Your task to perform on an android device: Go to Google maps Image 0: 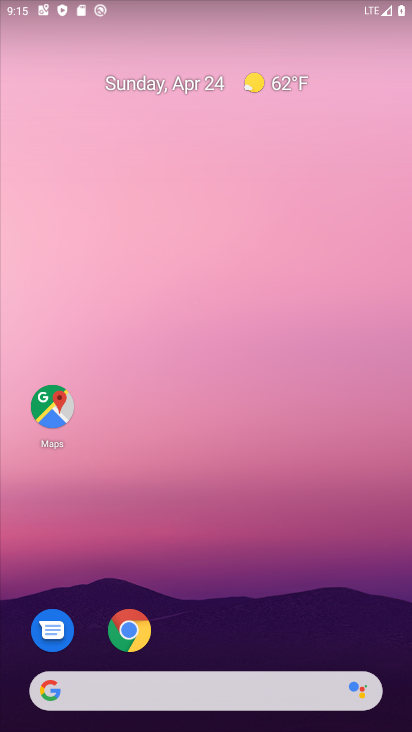
Step 0: drag from (267, 564) to (178, 0)
Your task to perform on an android device: Go to Google maps Image 1: 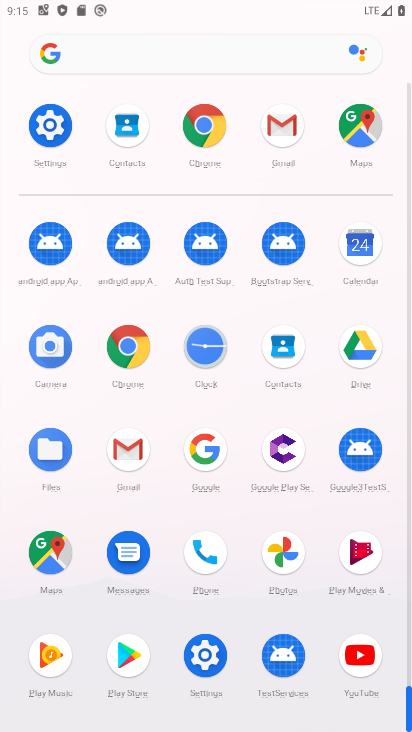
Step 1: drag from (6, 511) to (17, 254)
Your task to perform on an android device: Go to Google maps Image 2: 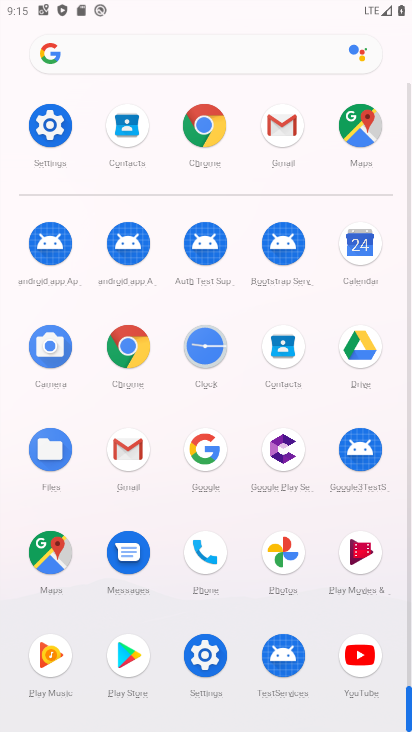
Step 2: drag from (8, 503) to (17, 269)
Your task to perform on an android device: Go to Google maps Image 3: 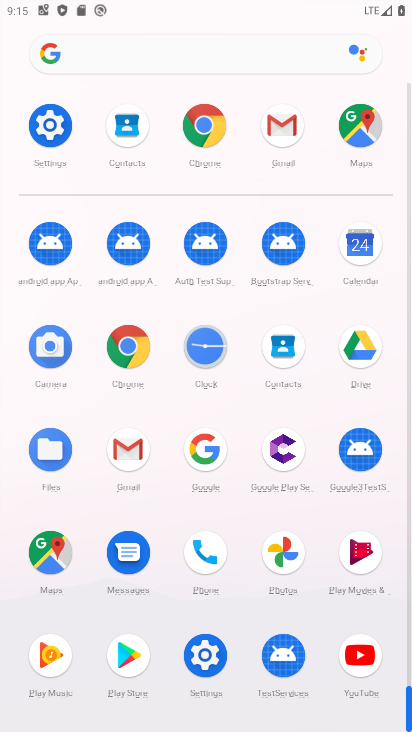
Step 3: click (42, 547)
Your task to perform on an android device: Go to Google maps Image 4: 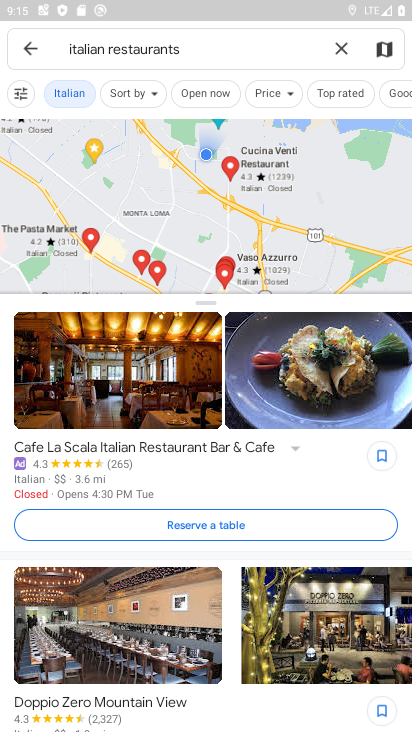
Step 4: click (33, 55)
Your task to perform on an android device: Go to Google maps Image 5: 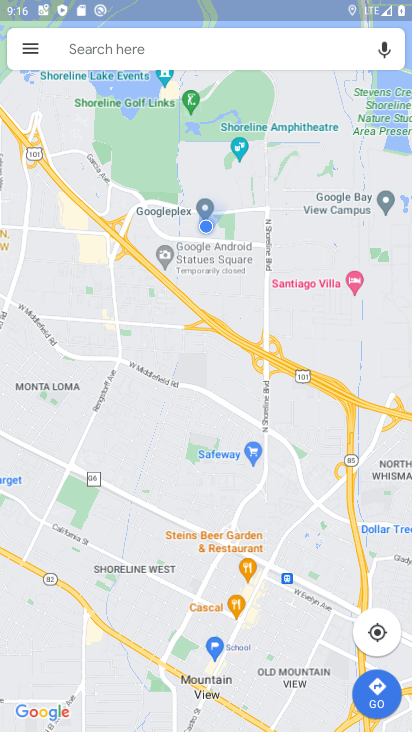
Step 5: task complete